Your task to perform on an android device: turn on translation in the chrome app Image 0: 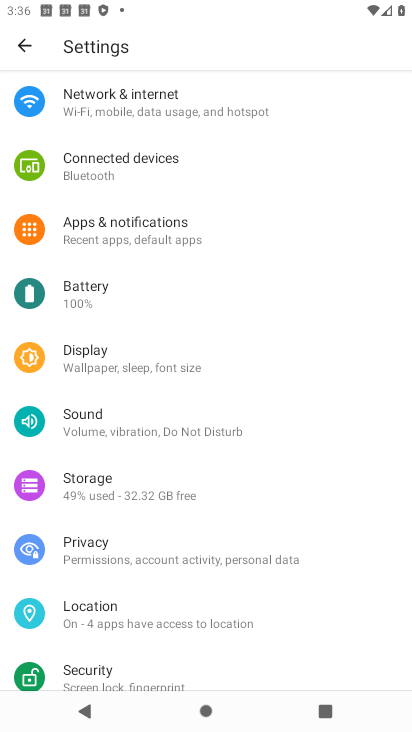
Step 0: task complete